Your task to perform on an android device: Show the shopping cart on costco. Image 0: 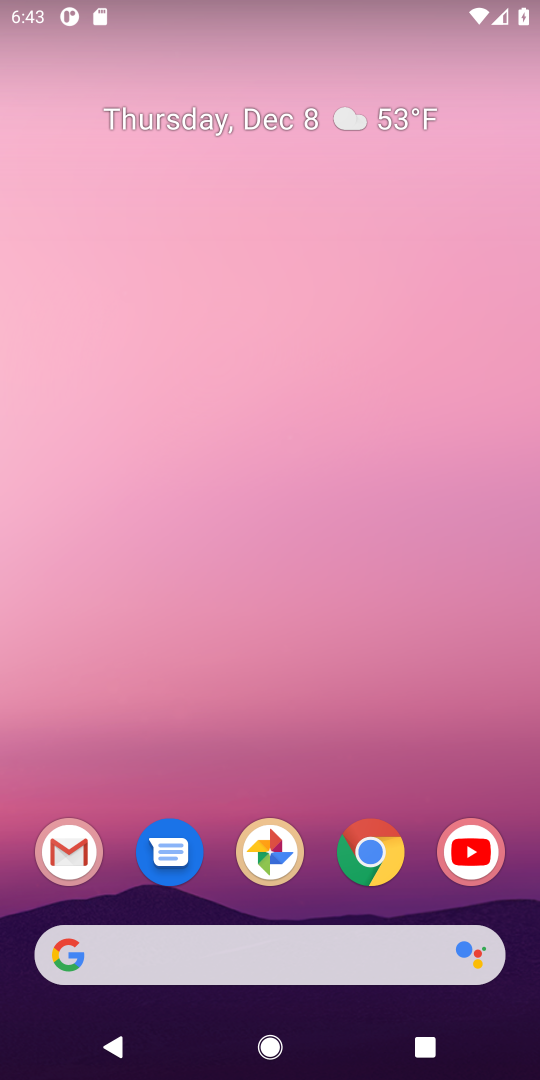
Step 0: press back button
Your task to perform on an android device: Show the shopping cart on costco. Image 1: 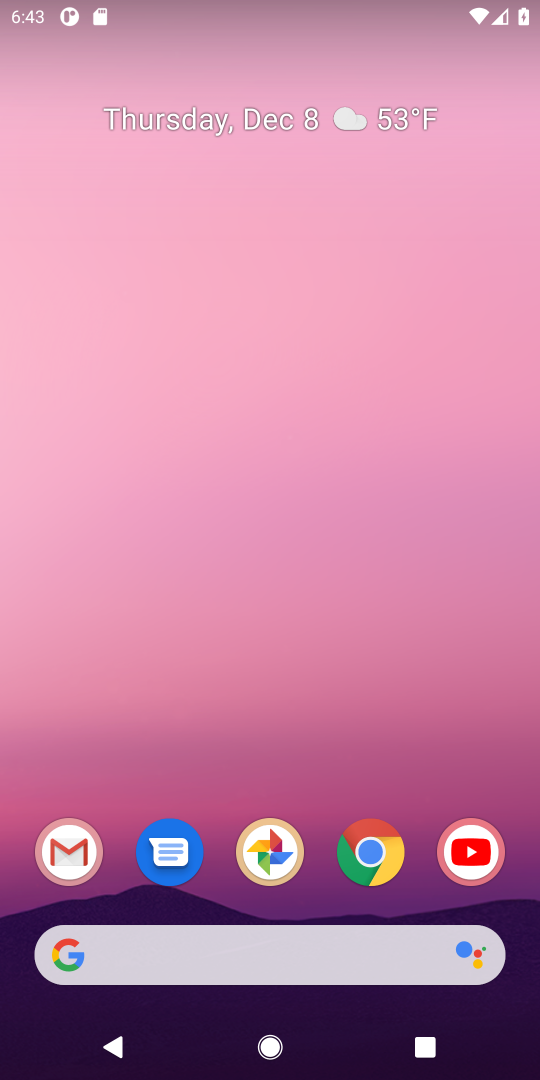
Step 1: click (210, 966)
Your task to perform on an android device: Show the shopping cart on costco. Image 2: 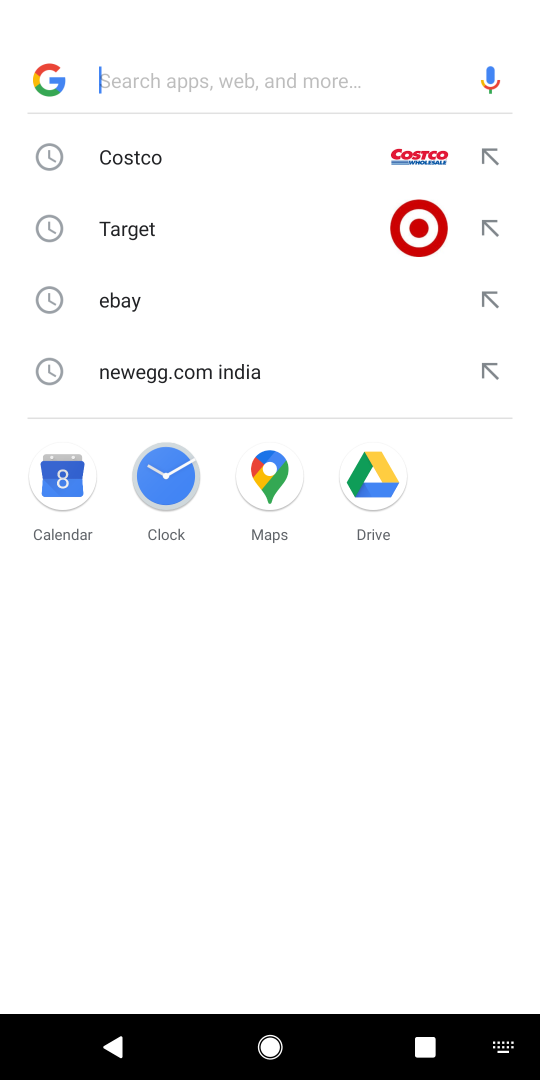
Step 2: click (237, 145)
Your task to perform on an android device: Show the shopping cart on costco. Image 3: 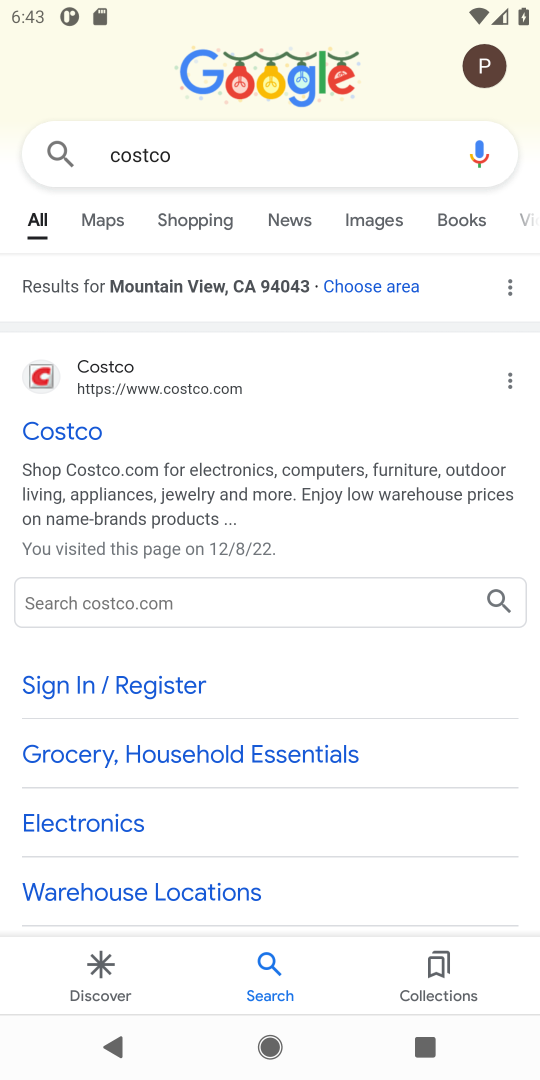
Step 3: click (21, 440)
Your task to perform on an android device: Show the shopping cart on costco. Image 4: 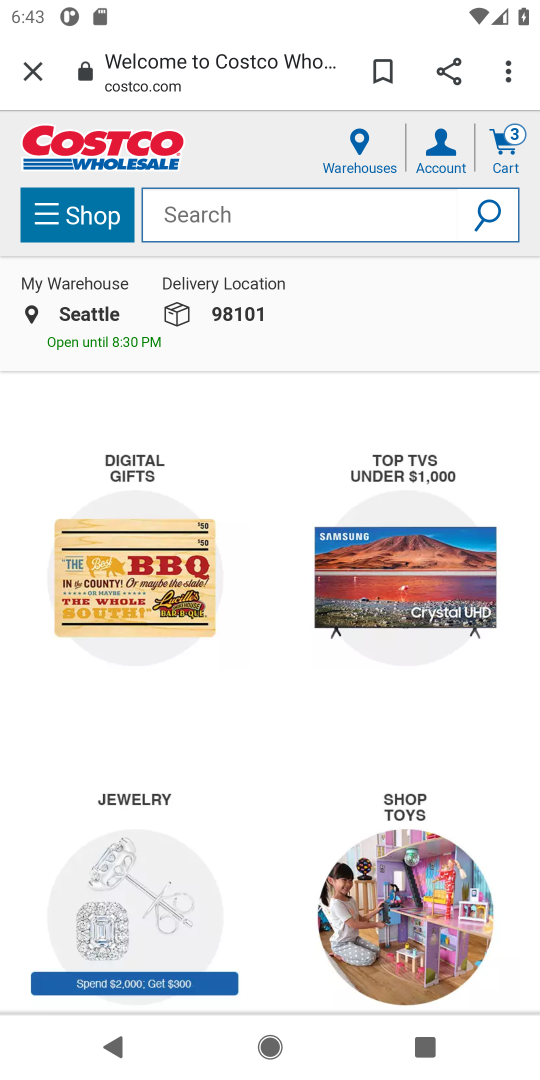
Step 4: click (238, 213)
Your task to perform on an android device: Show the shopping cart on costco. Image 5: 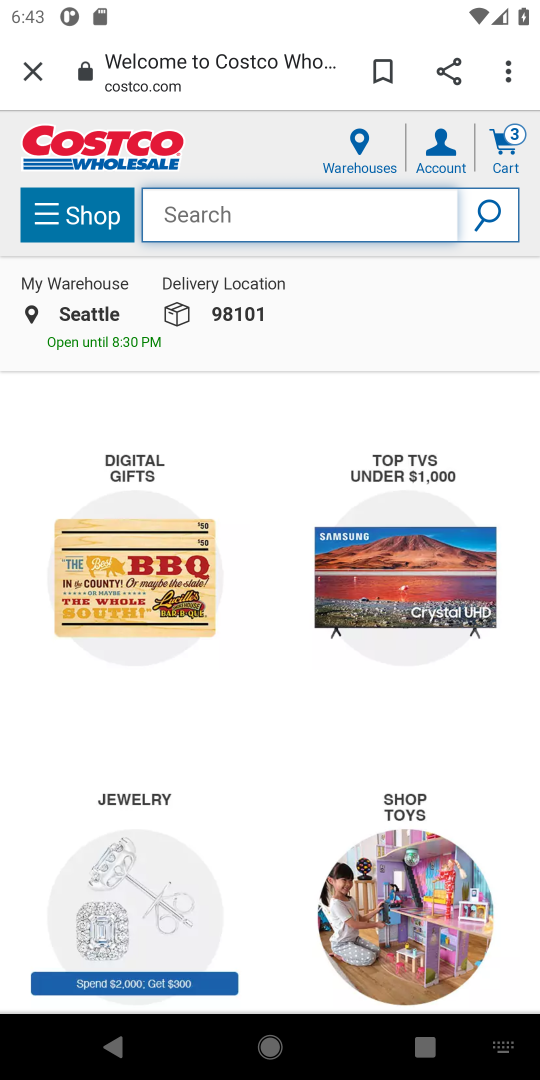
Step 5: click (507, 153)
Your task to perform on an android device: Show the shopping cart on costco. Image 6: 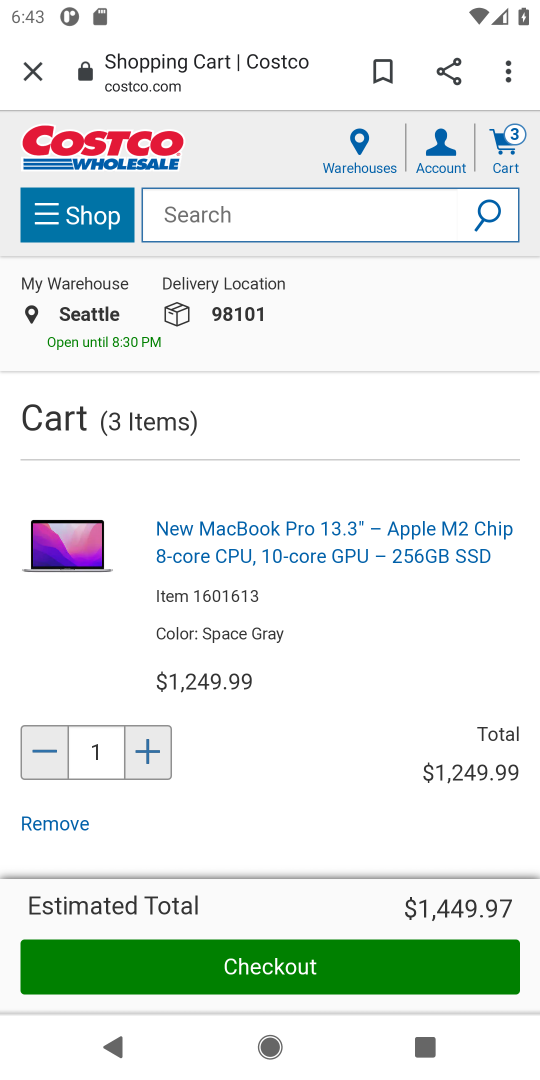
Step 6: task complete